Your task to perform on an android device: Go to privacy settings Image 0: 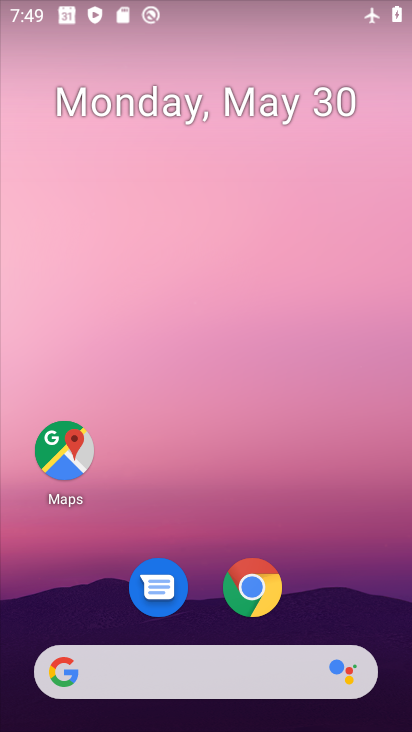
Step 0: drag from (342, 525) to (258, 25)
Your task to perform on an android device: Go to privacy settings Image 1: 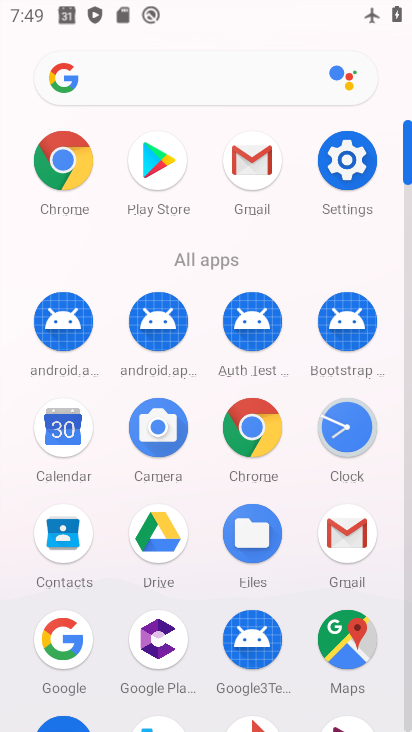
Step 1: drag from (6, 573) to (17, 257)
Your task to perform on an android device: Go to privacy settings Image 2: 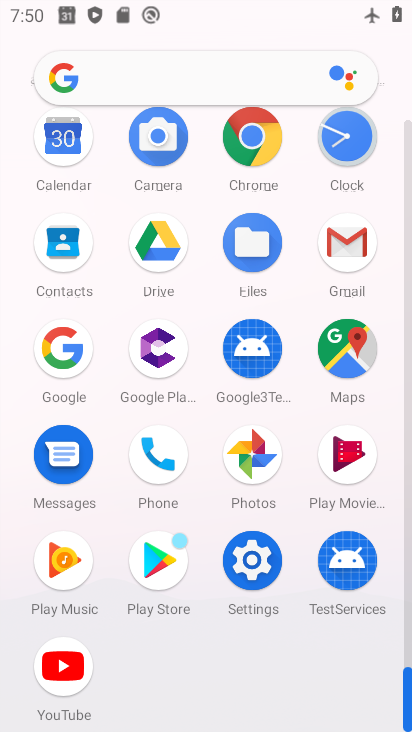
Step 2: click (251, 556)
Your task to perform on an android device: Go to privacy settings Image 3: 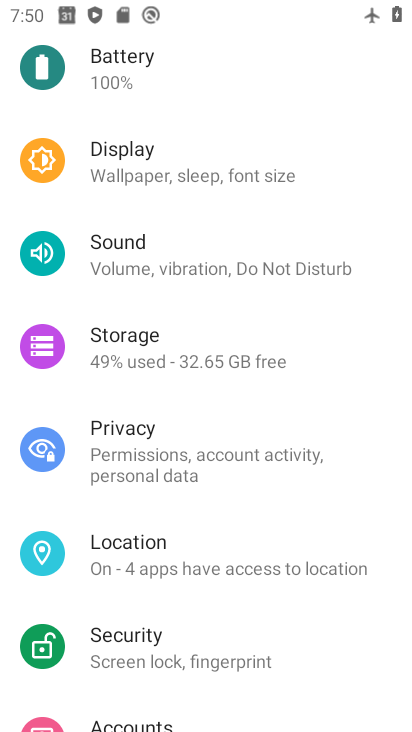
Step 3: press back button
Your task to perform on an android device: Go to privacy settings Image 4: 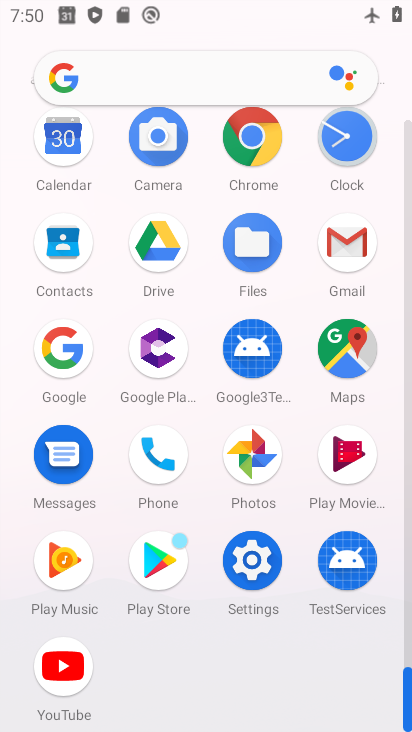
Step 4: press home button
Your task to perform on an android device: Go to privacy settings Image 5: 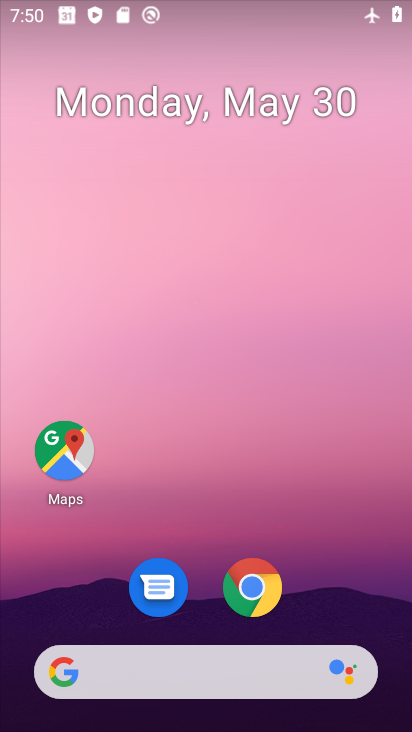
Step 5: drag from (339, 546) to (217, 0)
Your task to perform on an android device: Go to privacy settings Image 6: 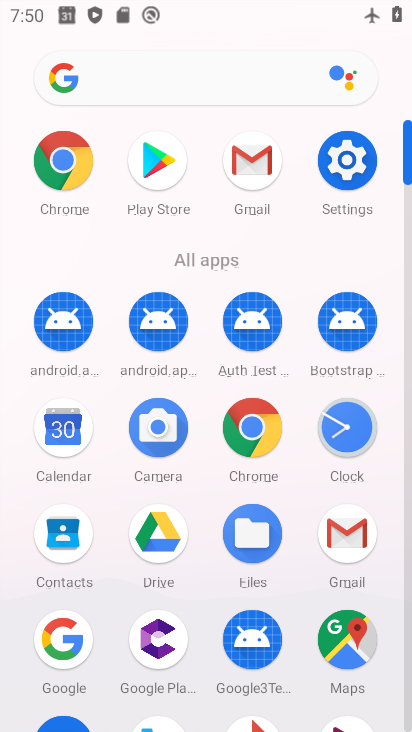
Step 6: click (59, 154)
Your task to perform on an android device: Go to privacy settings Image 7: 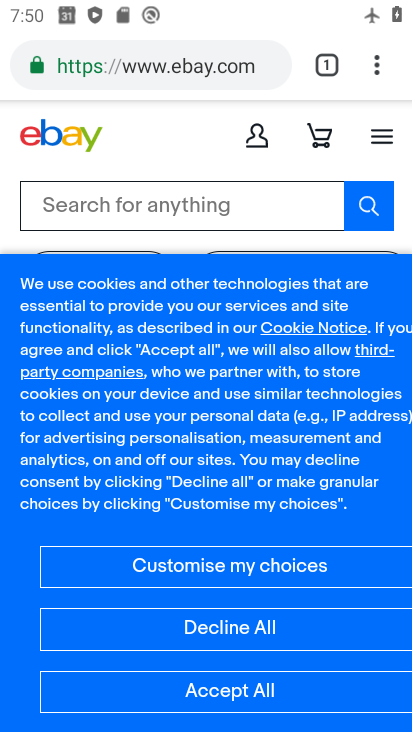
Step 7: drag from (380, 65) to (177, 621)
Your task to perform on an android device: Go to privacy settings Image 8: 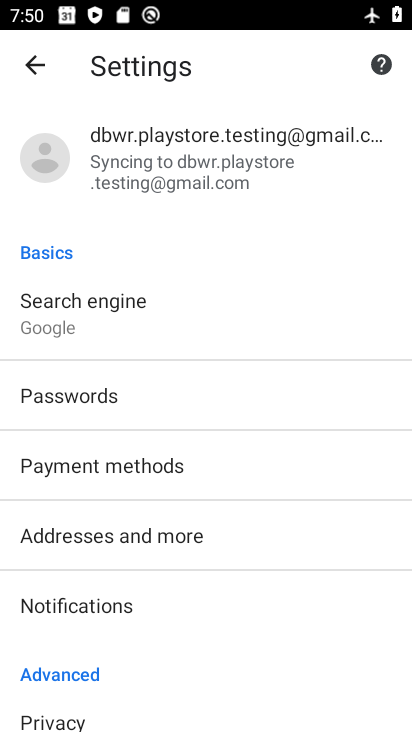
Step 8: drag from (196, 668) to (248, 197)
Your task to perform on an android device: Go to privacy settings Image 9: 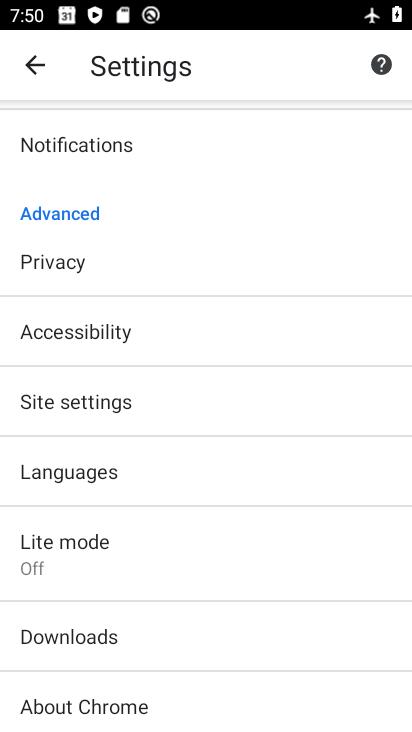
Step 9: click (90, 264)
Your task to perform on an android device: Go to privacy settings Image 10: 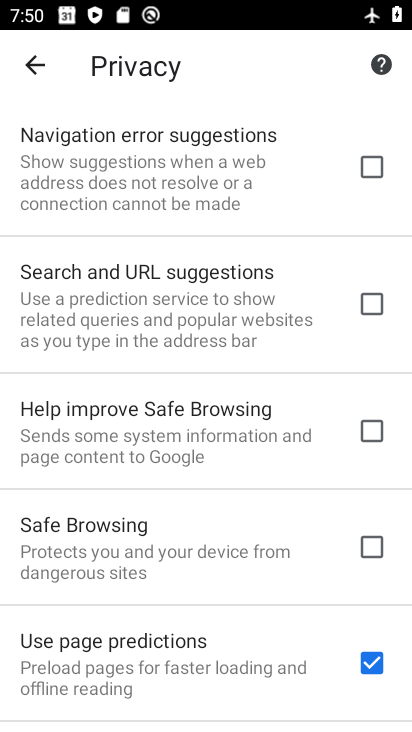
Step 10: task complete